Your task to perform on an android device: Open the stopwatch Image 0: 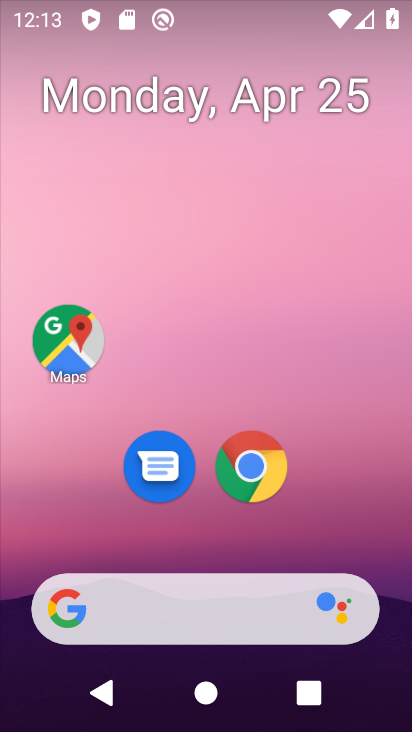
Step 0: drag from (298, 483) to (341, 57)
Your task to perform on an android device: Open the stopwatch Image 1: 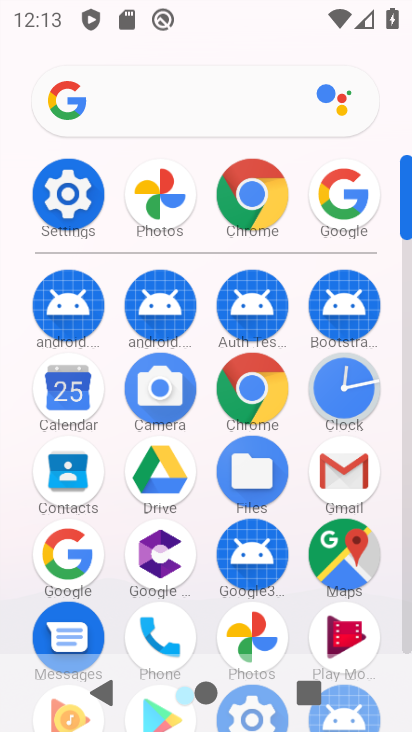
Step 1: drag from (218, 516) to (245, 72)
Your task to perform on an android device: Open the stopwatch Image 2: 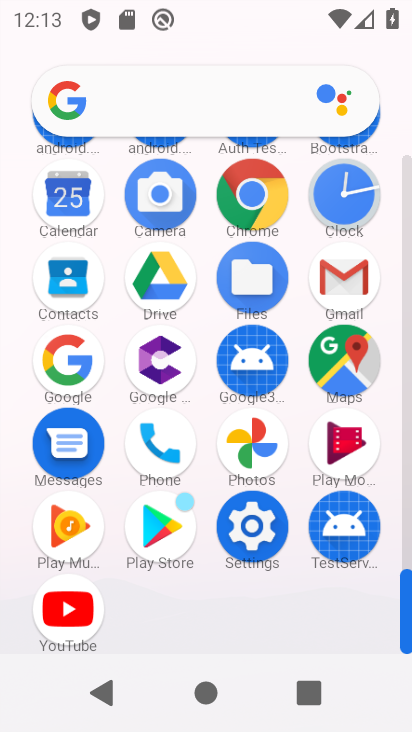
Step 2: drag from (271, 282) to (248, 634)
Your task to perform on an android device: Open the stopwatch Image 3: 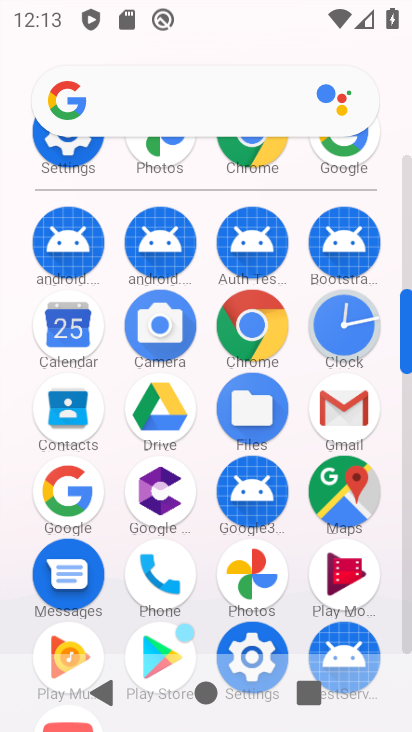
Step 3: click (346, 338)
Your task to perform on an android device: Open the stopwatch Image 4: 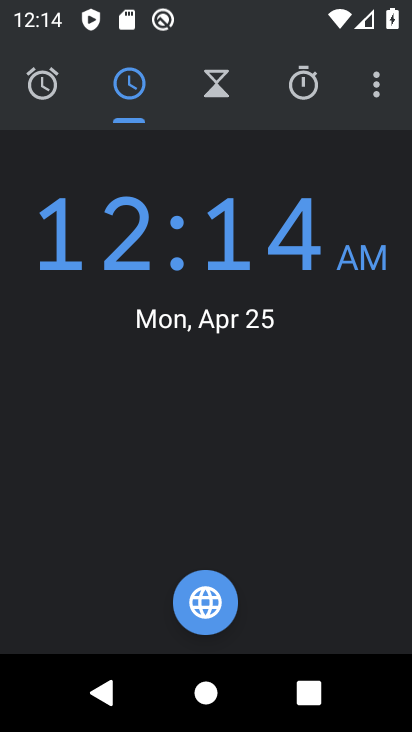
Step 4: click (297, 74)
Your task to perform on an android device: Open the stopwatch Image 5: 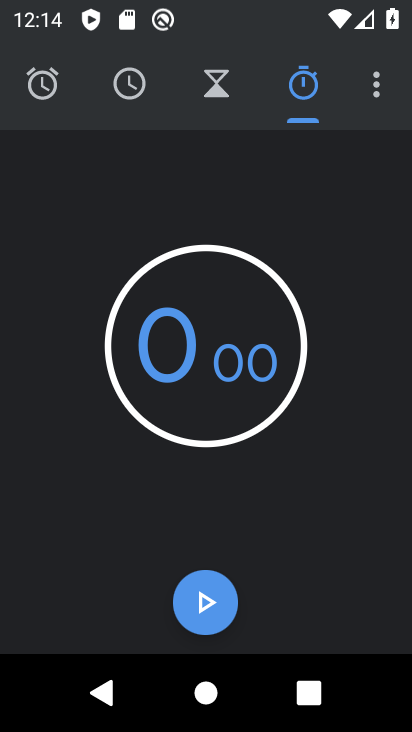
Step 5: click (222, 610)
Your task to perform on an android device: Open the stopwatch Image 6: 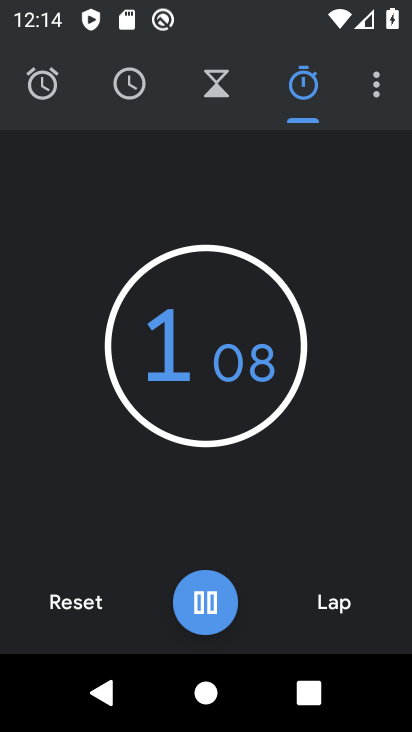
Step 6: task complete